Your task to perform on an android device: Go to Google Image 0: 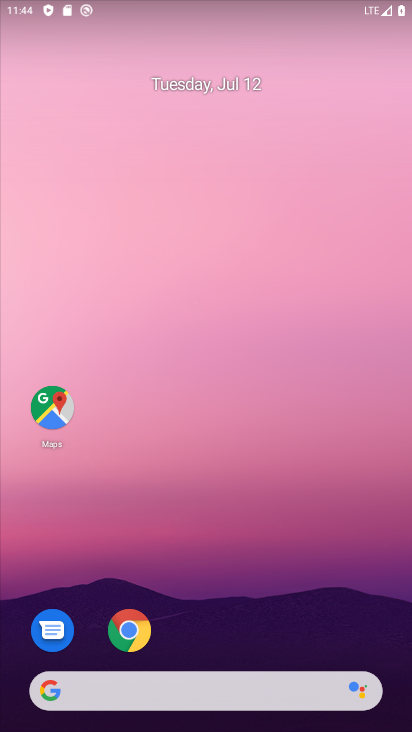
Step 0: drag from (404, 647) to (107, 12)
Your task to perform on an android device: Go to Google Image 1: 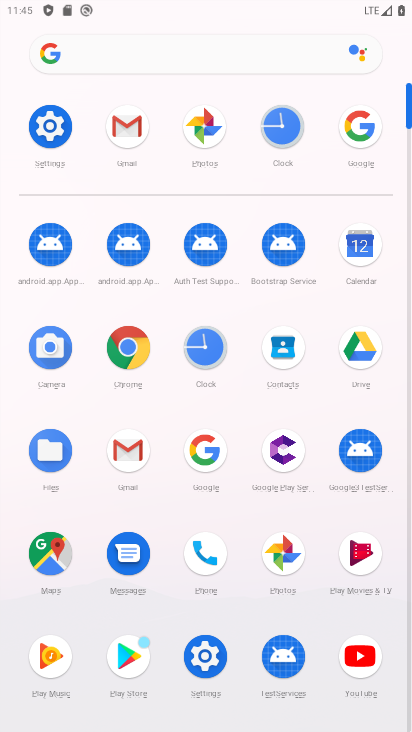
Step 1: click (212, 461)
Your task to perform on an android device: Go to Google Image 2: 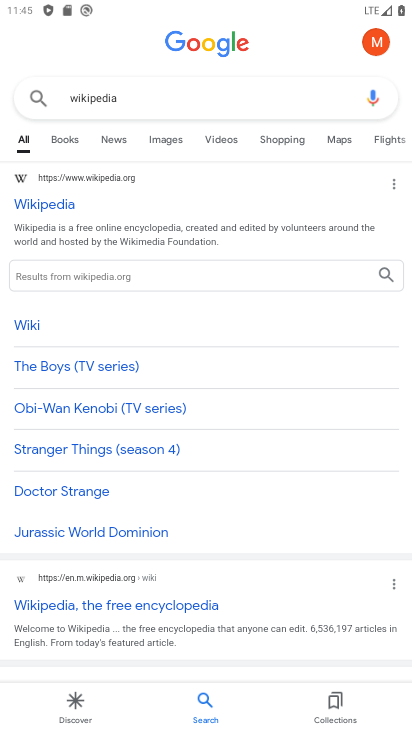
Step 2: task complete